Your task to perform on an android device: What's the weather? Image 0: 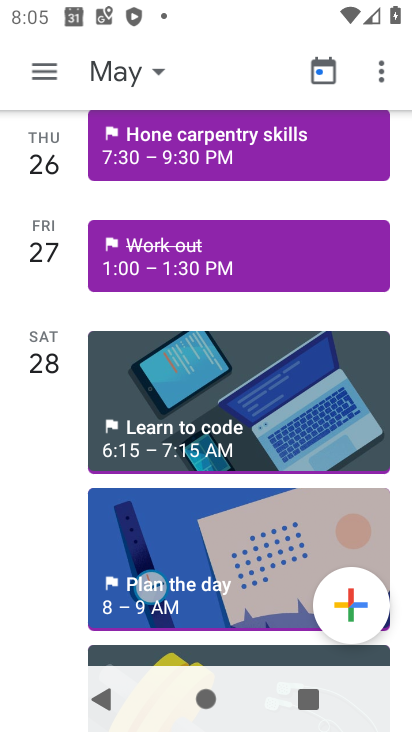
Step 0: press home button
Your task to perform on an android device: What's the weather? Image 1: 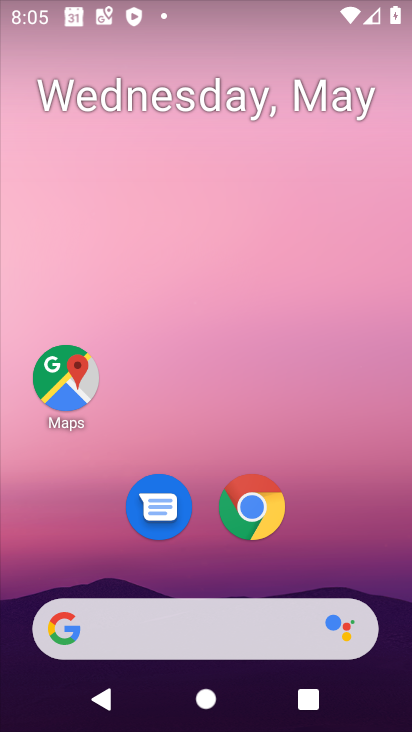
Step 1: click (253, 503)
Your task to perform on an android device: What's the weather? Image 2: 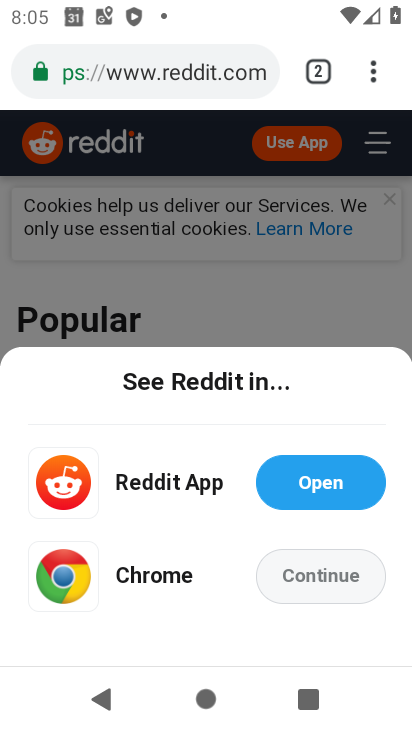
Step 2: click (380, 72)
Your task to perform on an android device: What's the weather? Image 3: 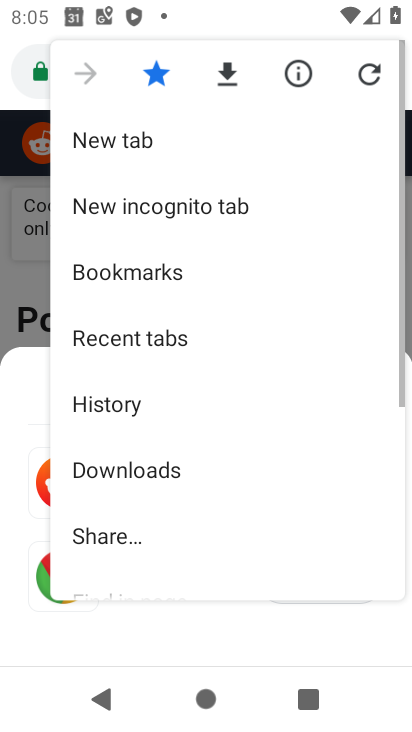
Step 3: click (139, 134)
Your task to perform on an android device: What's the weather? Image 4: 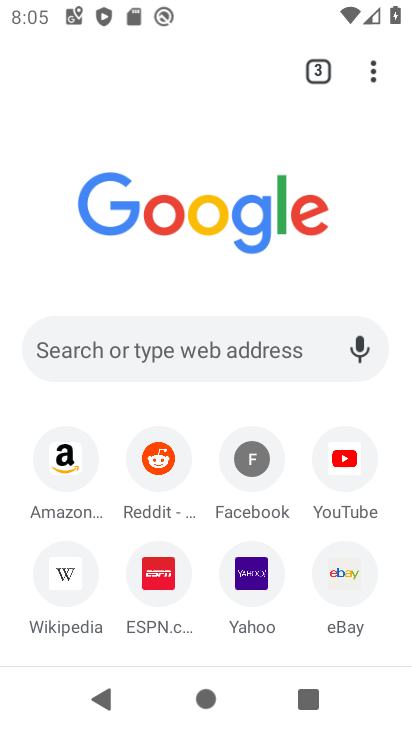
Step 4: click (231, 344)
Your task to perform on an android device: What's the weather? Image 5: 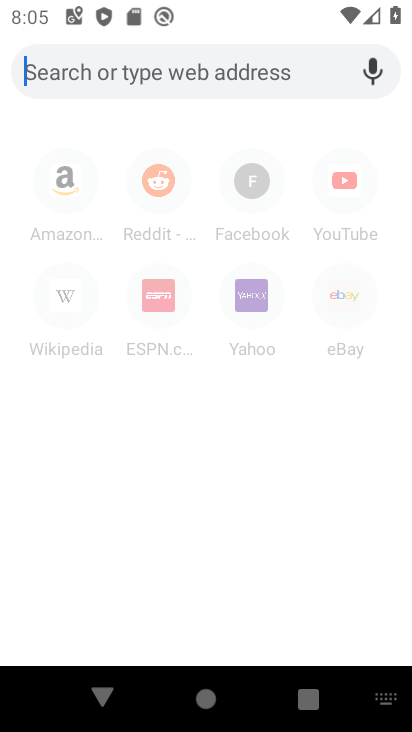
Step 5: type "What's the weather?"
Your task to perform on an android device: What's the weather? Image 6: 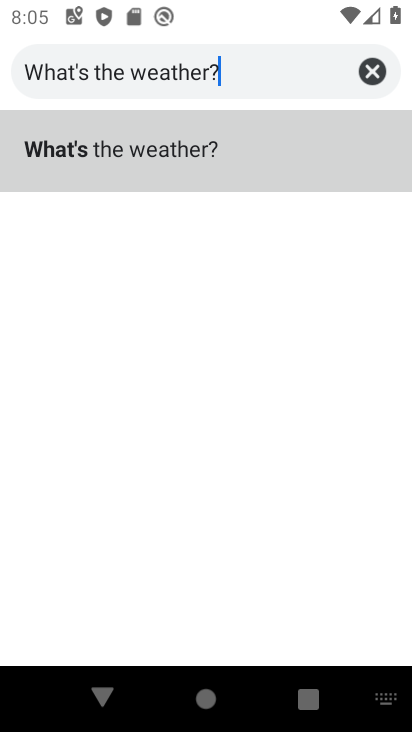
Step 6: click (159, 153)
Your task to perform on an android device: What's the weather? Image 7: 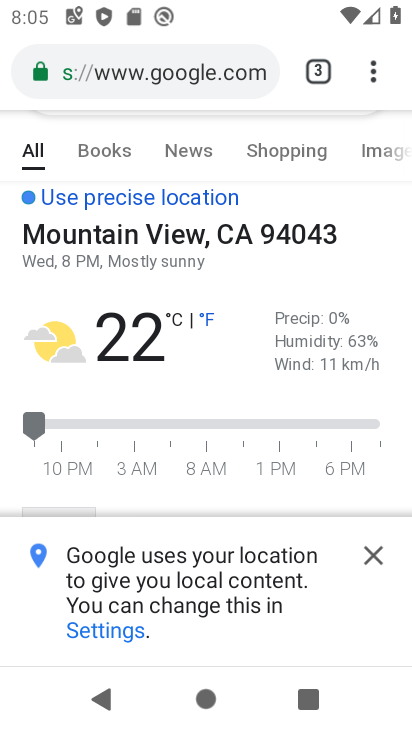
Step 7: click (378, 560)
Your task to perform on an android device: What's the weather? Image 8: 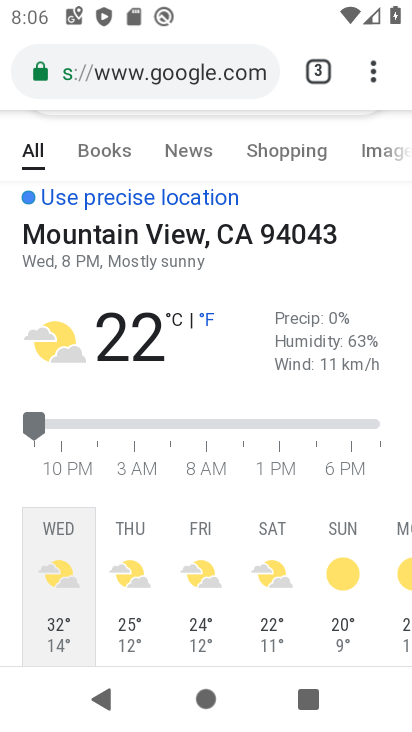
Step 8: task complete